Your task to perform on an android device: change the clock display to analog Image 0: 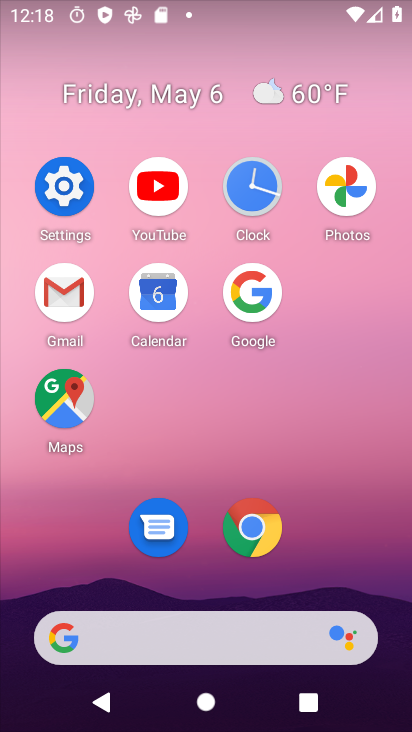
Step 0: click (249, 180)
Your task to perform on an android device: change the clock display to analog Image 1: 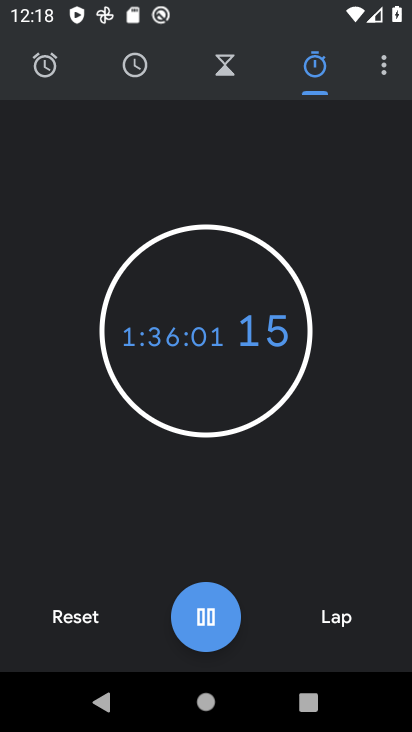
Step 1: click (383, 89)
Your task to perform on an android device: change the clock display to analog Image 2: 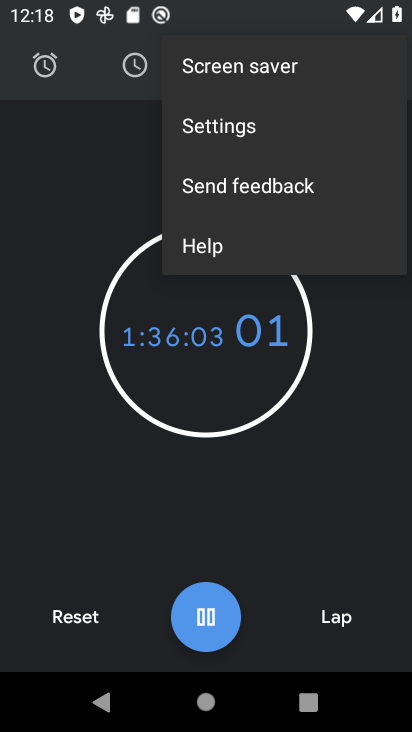
Step 2: click (252, 110)
Your task to perform on an android device: change the clock display to analog Image 3: 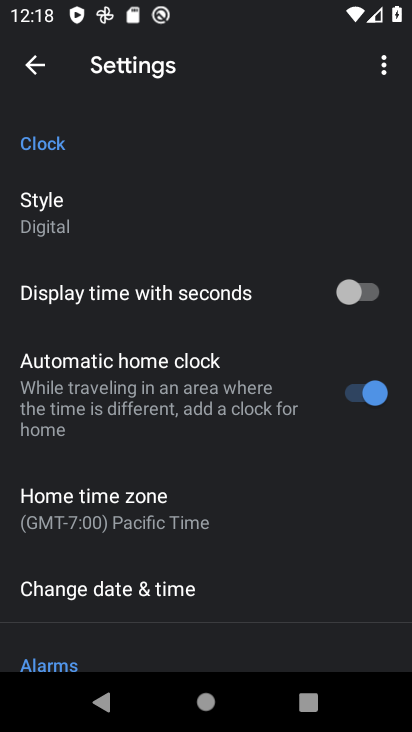
Step 3: click (101, 207)
Your task to perform on an android device: change the clock display to analog Image 4: 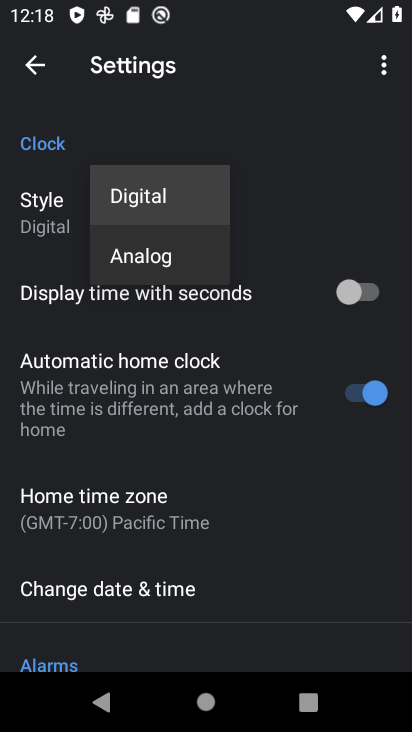
Step 4: click (131, 246)
Your task to perform on an android device: change the clock display to analog Image 5: 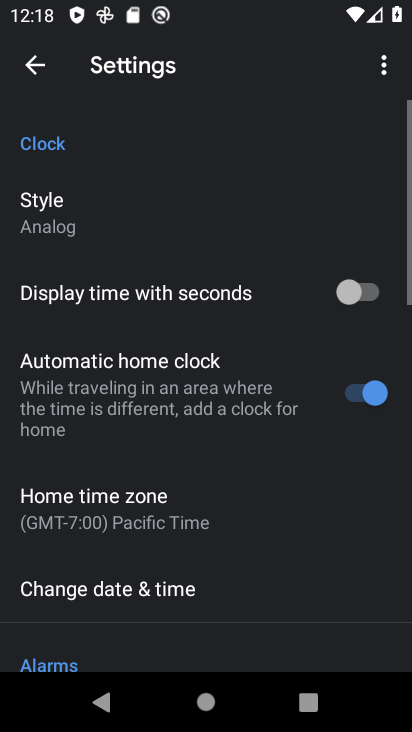
Step 5: task complete